Your task to perform on an android device: Open Google Chrome and open the bookmarks view Image 0: 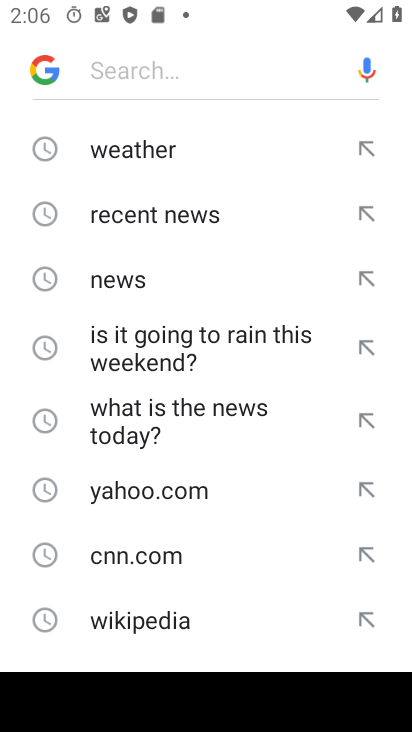
Step 0: press home button
Your task to perform on an android device: Open Google Chrome and open the bookmarks view Image 1: 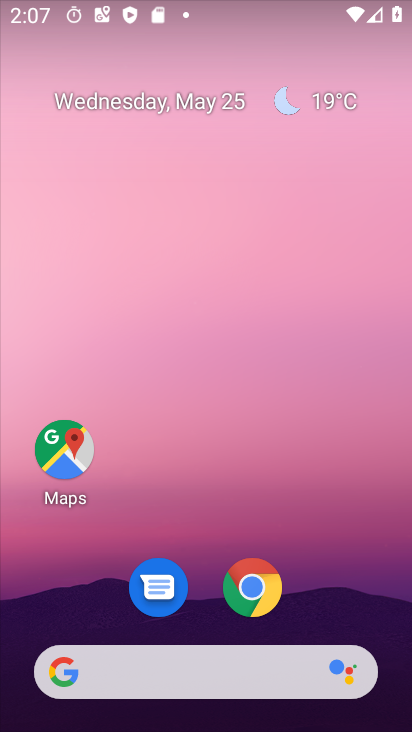
Step 1: click (254, 586)
Your task to perform on an android device: Open Google Chrome and open the bookmarks view Image 2: 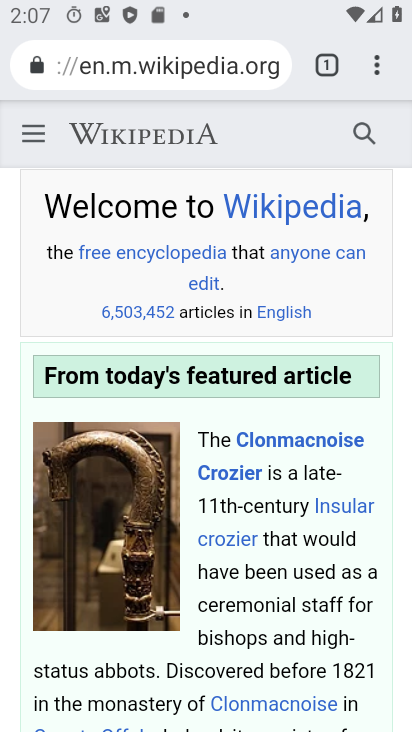
Step 2: click (374, 61)
Your task to perform on an android device: Open Google Chrome and open the bookmarks view Image 3: 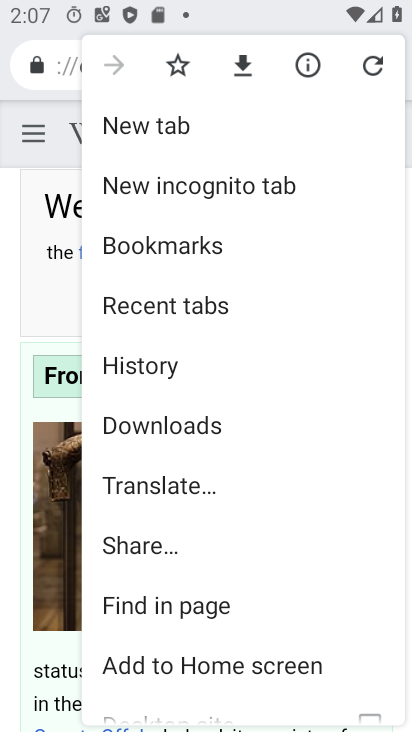
Step 3: click (196, 250)
Your task to perform on an android device: Open Google Chrome and open the bookmarks view Image 4: 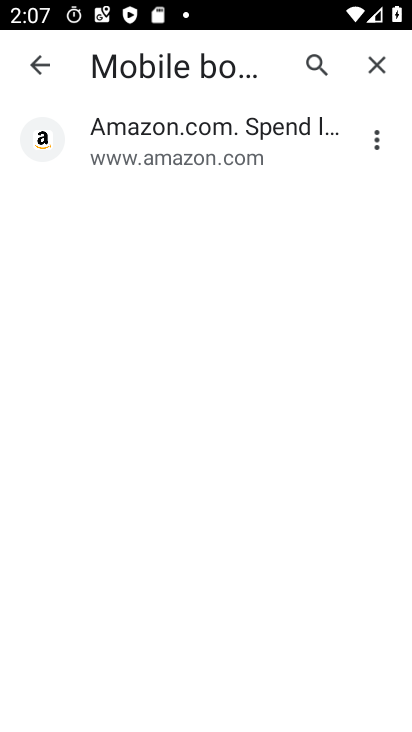
Step 4: click (174, 152)
Your task to perform on an android device: Open Google Chrome and open the bookmarks view Image 5: 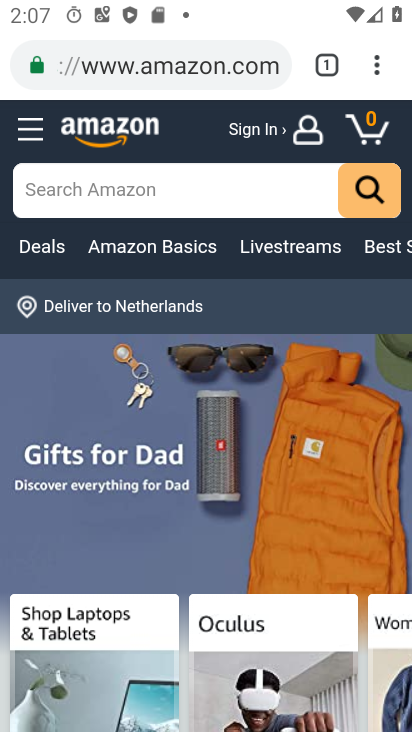
Step 5: task complete